Your task to perform on an android device: Open the web browser Image 0: 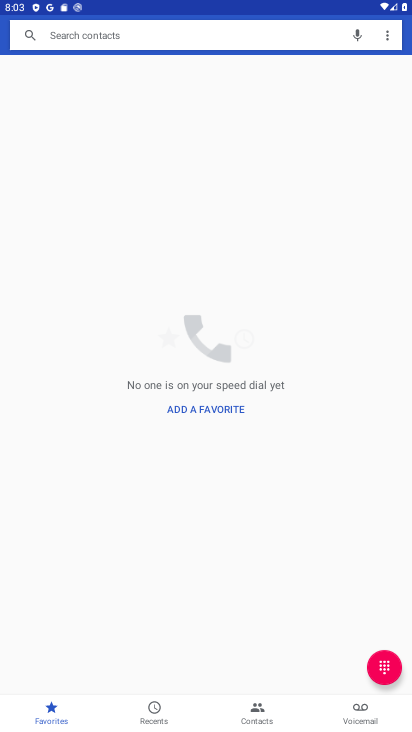
Step 0: press home button
Your task to perform on an android device: Open the web browser Image 1: 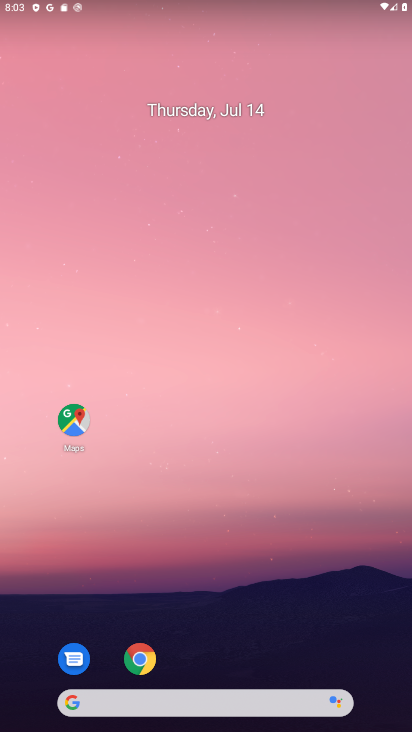
Step 1: click (140, 655)
Your task to perform on an android device: Open the web browser Image 2: 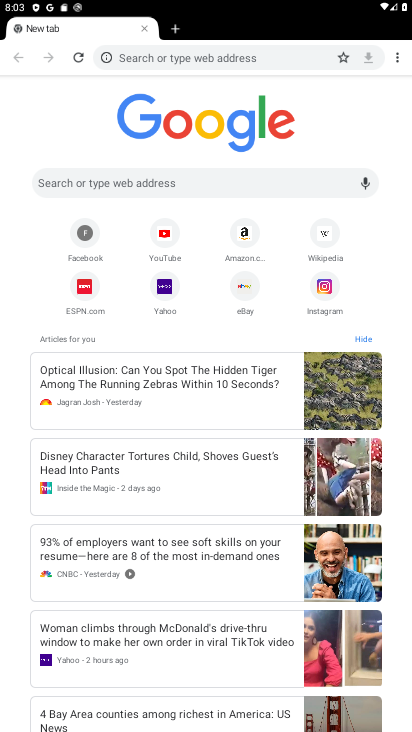
Step 2: task complete